Your task to perform on an android device: Go to wifi settings Image 0: 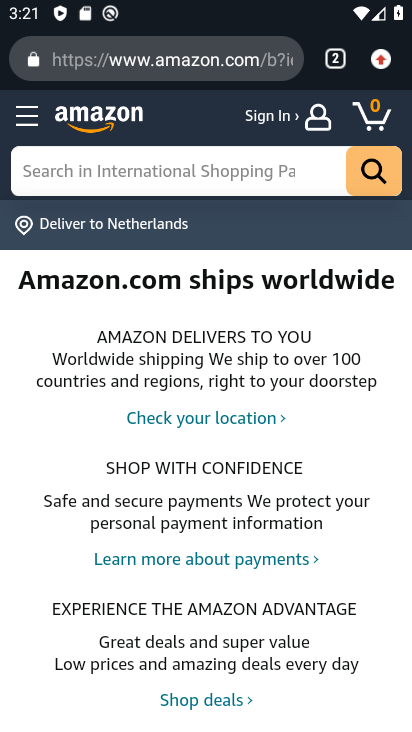
Step 0: press home button
Your task to perform on an android device: Go to wifi settings Image 1: 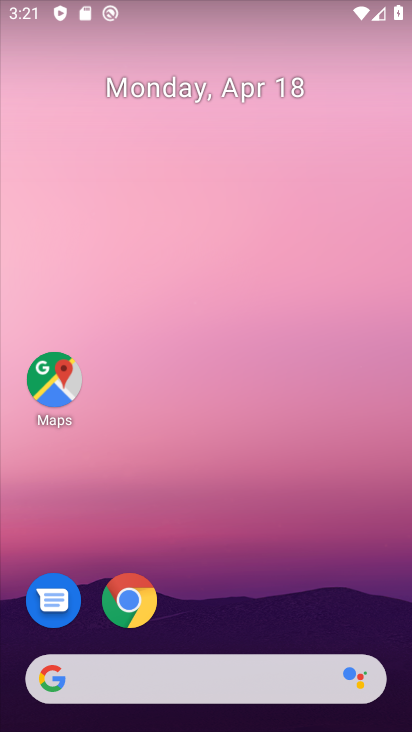
Step 1: drag from (307, 437) to (262, 157)
Your task to perform on an android device: Go to wifi settings Image 2: 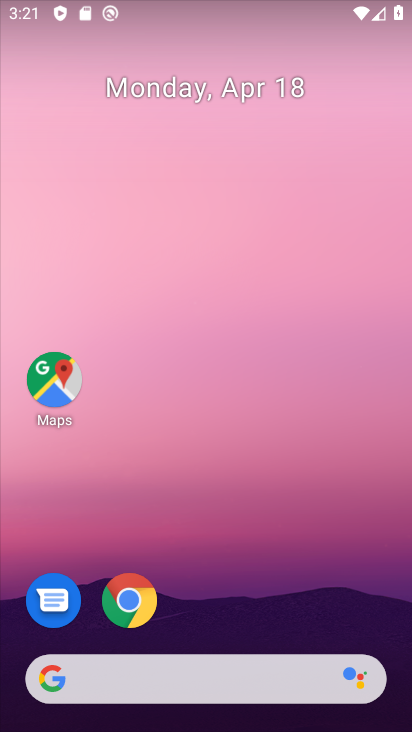
Step 2: drag from (357, 625) to (305, 98)
Your task to perform on an android device: Go to wifi settings Image 3: 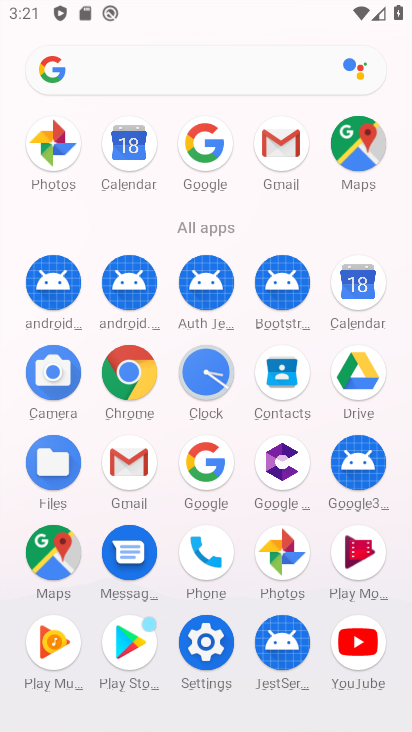
Step 3: click (209, 647)
Your task to perform on an android device: Go to wifi settings Image 4: 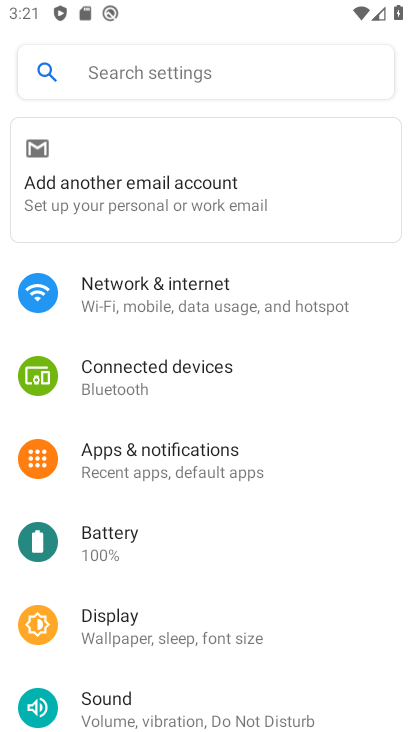
Step 4: click (111, 283)
Your task to perform on an android device: Go to wifi settings Image 5: 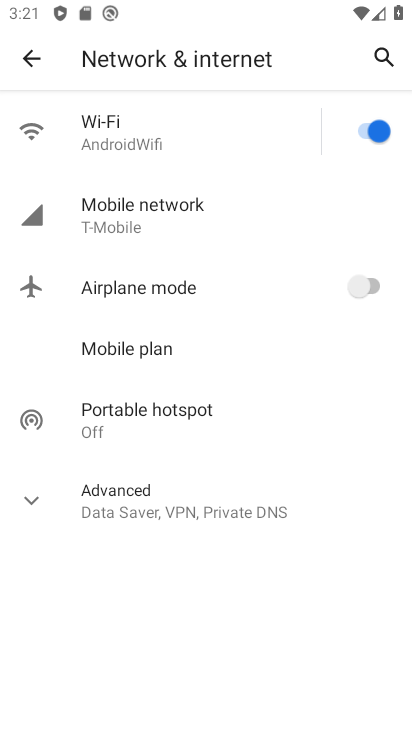
Step 5: click (80, 129)
Your task to perform on an android device: Go to wifi settings Image 6: 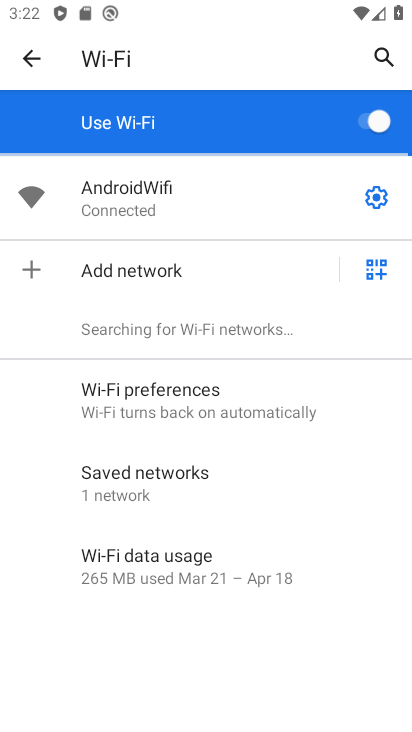
Step 6: click (381, 191)
Your task to perform on an android device: Go to wifi settings Image 7: 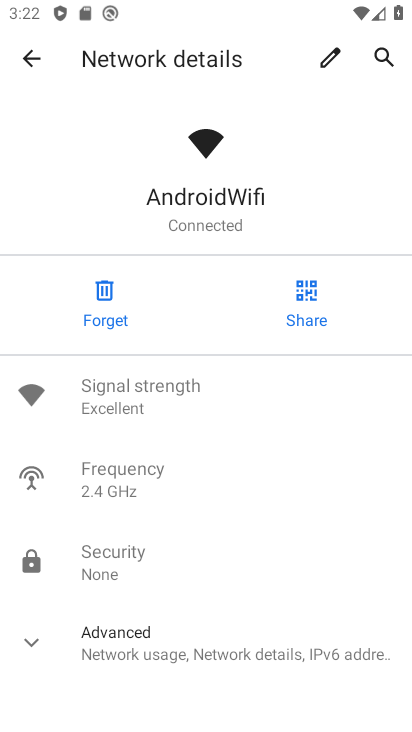
Step 7: task complete